Your task to perform on an android device: turn off translation in the chrome app Image 0: 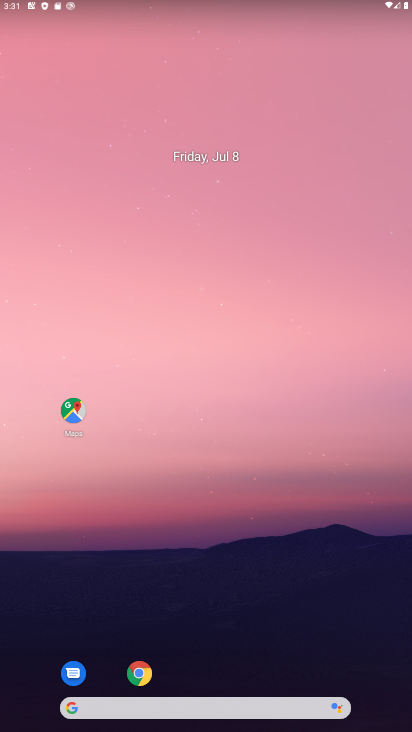
Step 0: click (133, 673)
Your task to perform on an android device: turn off translation in the chrome app Image 1: 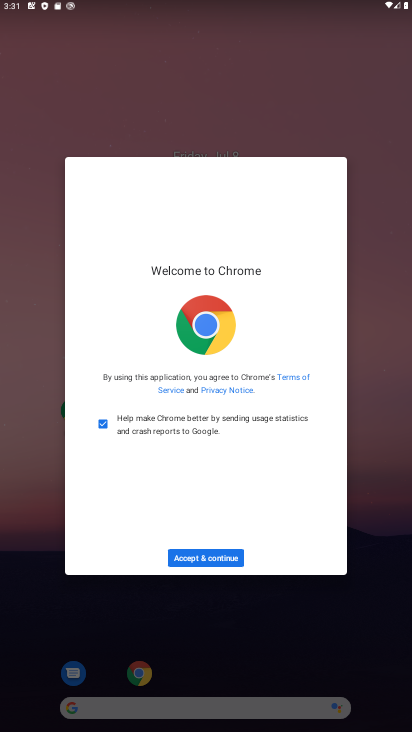
Step 1: click (221, 556)
Your task to perform on an android device: turn off translation in the chrome app Image 2: 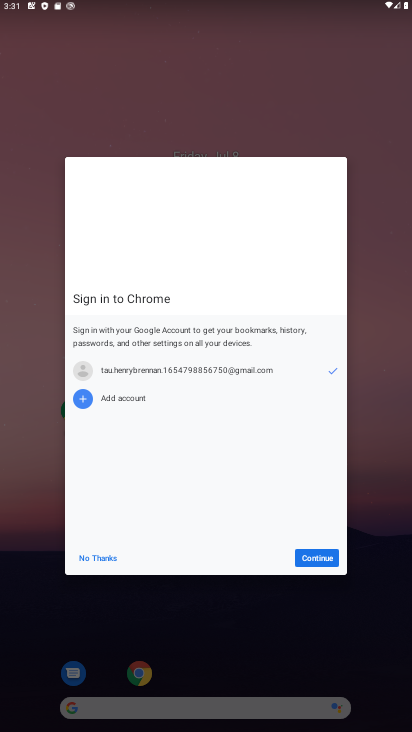
Step 2: click (319, 552)
Your task to perform on an android device: turn off translation in the chrome app Image 3: 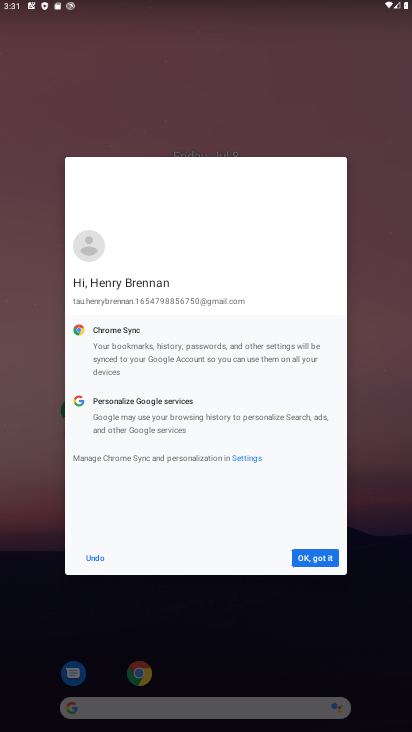
Step 3: click (319, 552)
Your task to perform on an android device: turn off translation in the chrome app Image 4: 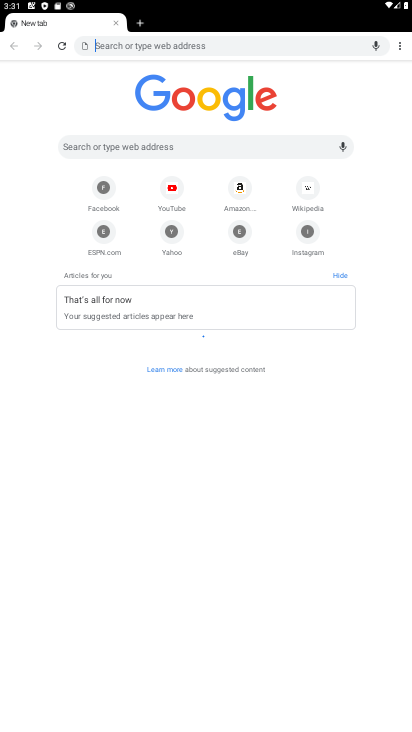
Step 4: click (398, 47)
Your task to perform on an android device: turn off translation in the chrome app Image 5: 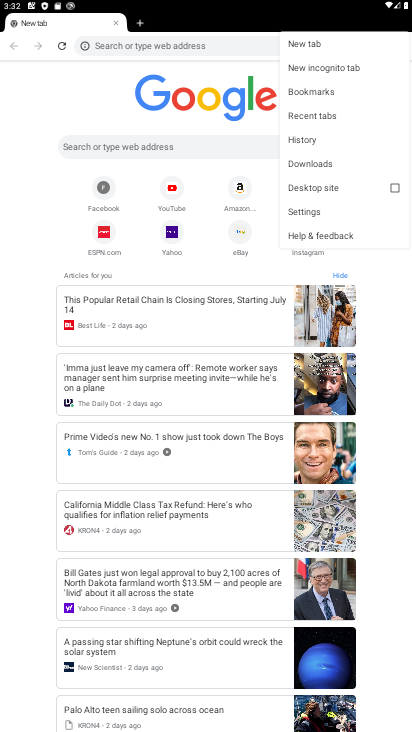
Step 5: click (316, 208)
Your task to perform on an android device: turn off translation in the chrome app Image 6: 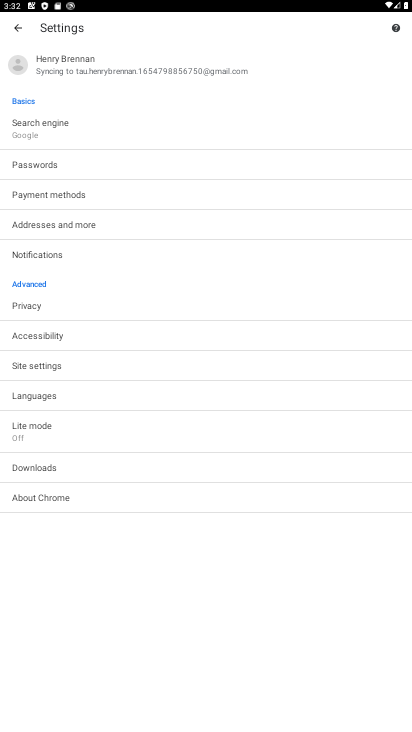
Step 6: click (51, 396)
Your task to perform on an android device: turn off translation in the chrome app Image 7: 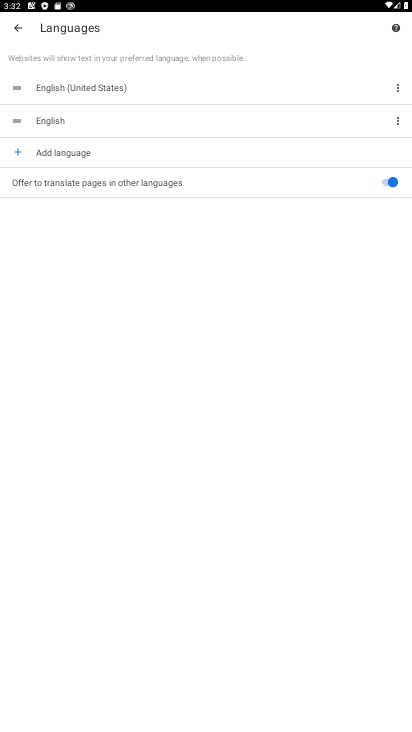
Step 7: click (389, 184)
Your task to perform on an android device: turn off translation in the chrome app Image 8: 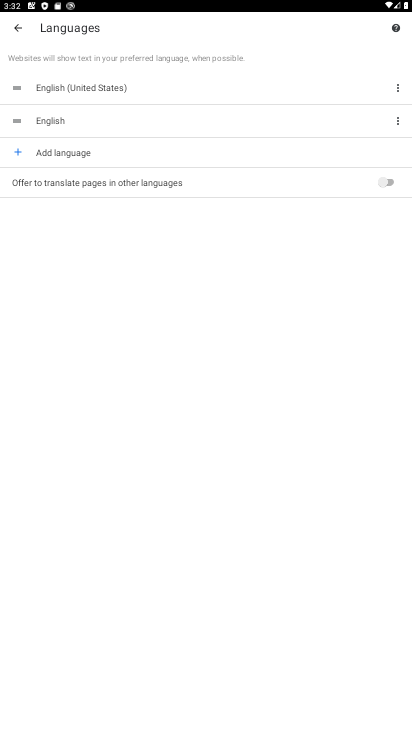
Step 8: task complete